Your task to perform on an android device: toggle data saver in the chrome app Image 0: 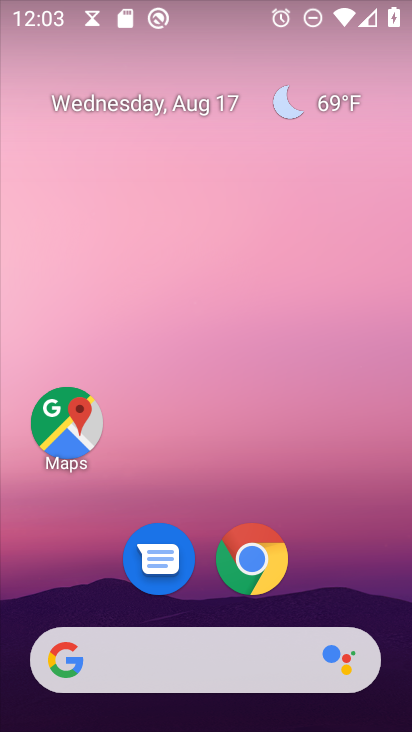
Step 0: click (254, 562)
Your task to perform on an android device: toggle data saver in the chrome app Image 1: 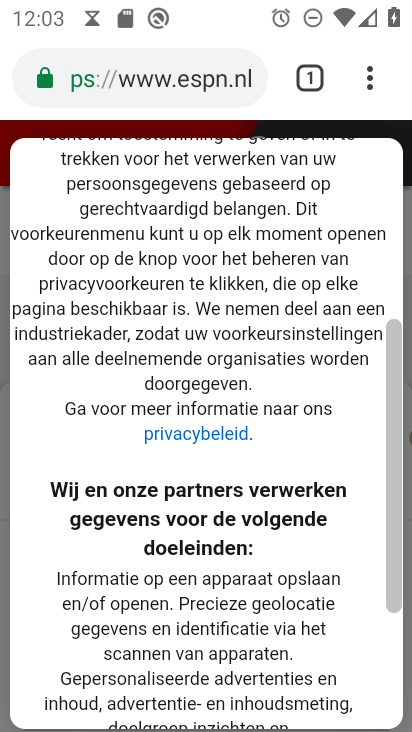
Step 1: click (388, 79)
Your task to perform on an android device: toggle data saver in the chrome app Image 2: 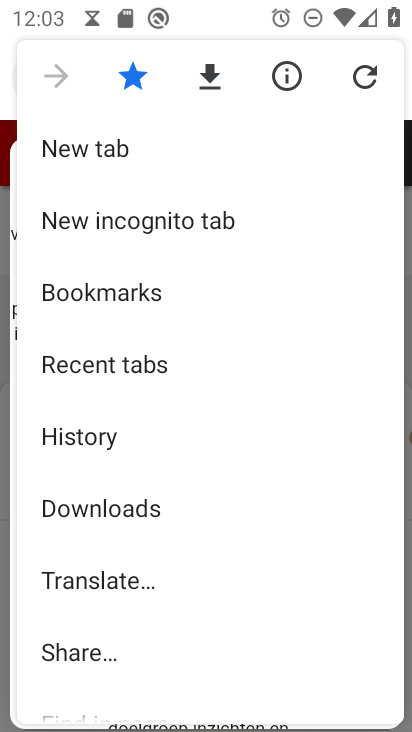
Step 2: drag from (154, 439) to (179, 361)
Your task to perform on an android device: toggle data saver in the chrome app Image 3: 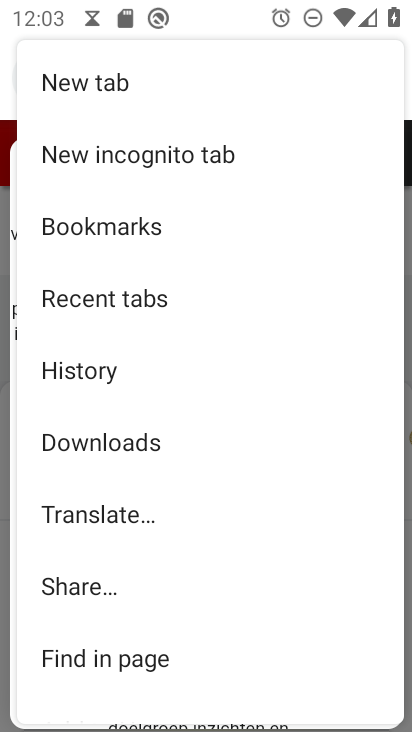
Step 3: drag from (151, 465) to (188, 384)
Your task to perform on an android device: toggle data saver in the chrome app Image 4: 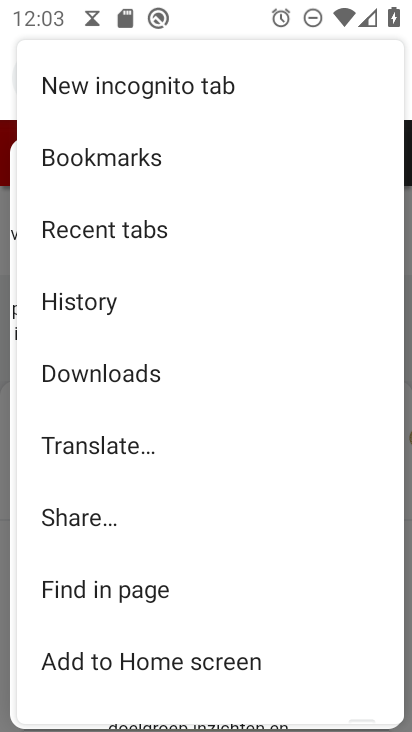
Step 4: drag from (169, 482) to (197, 409)
Your task to perform on an android device: toggle data saver in the chrome app Image 5: 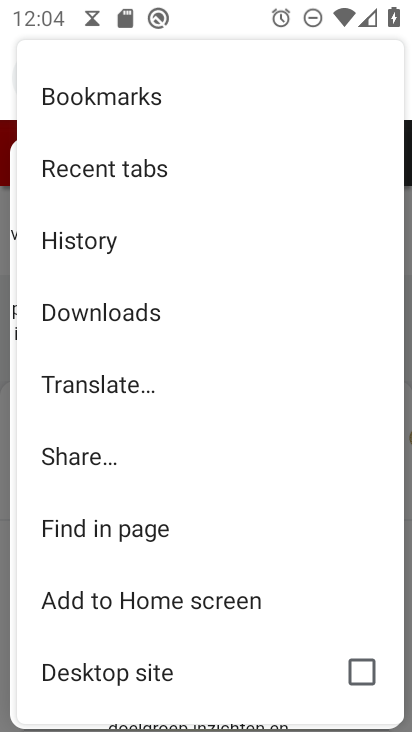
Step 5: drag from (130, 498) to (175, 417)
Your task to perform on an android device: toggle data saver in the chrome app Image 6: 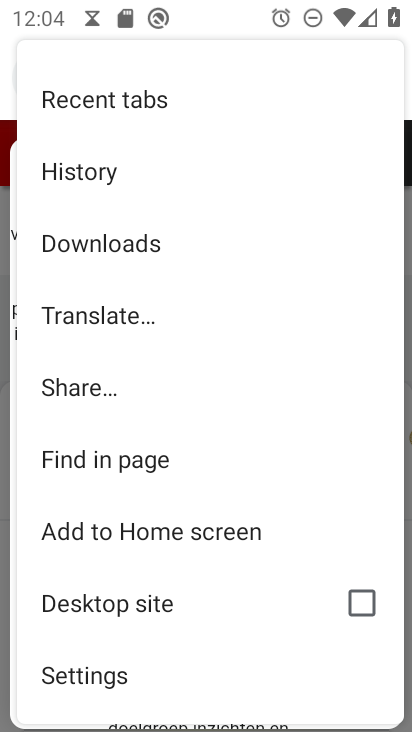
Step 6: drag from (149, 554) to (202, 465)
Your task to perform on an android device: toggle data saver in the chrome app Image 7: 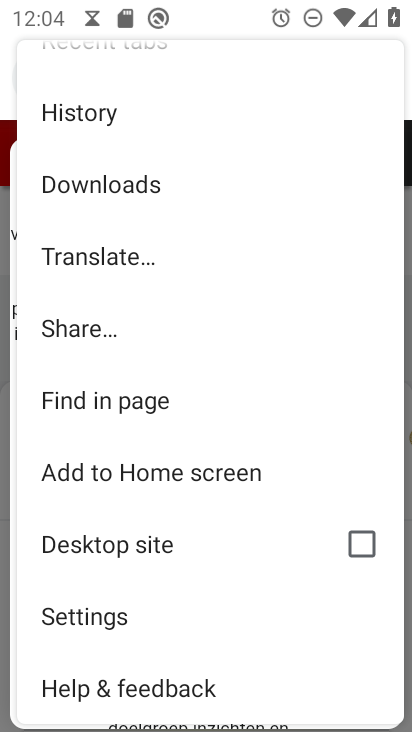
Step 7: click (109, 622)
Your task to perform on an android device: toggle data saver in the chrome app Image 8: 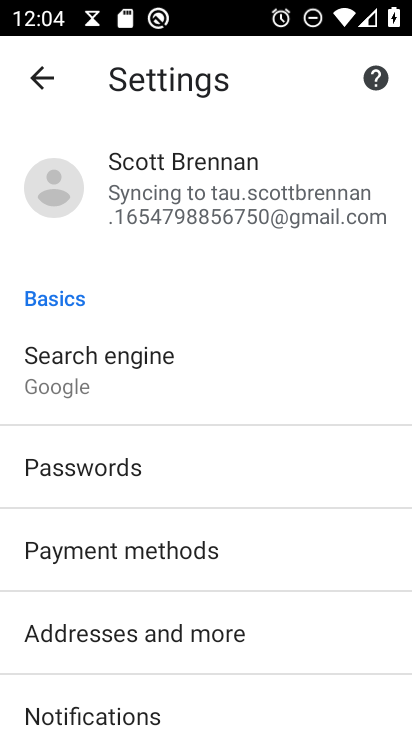
Step 8: drag from (93, 577) to (194, 427)
Your task to perform on an android device: toggle data saver in the chrome app Image 9: 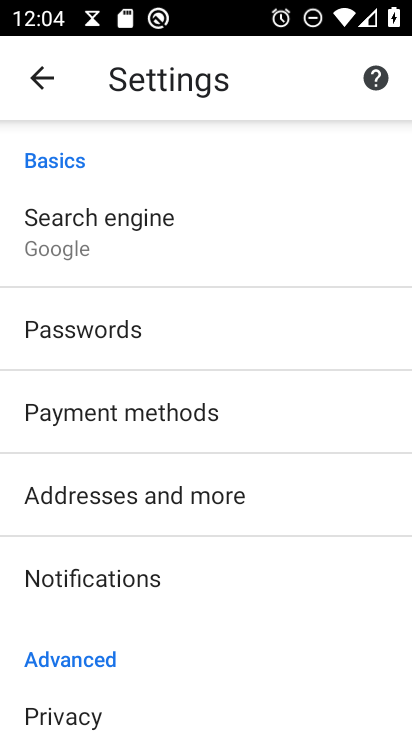
Step 9: drag from (101, 637) to (174, 511)
Your task to perform on an android device: toggle data saver in the chrome app Image 10: 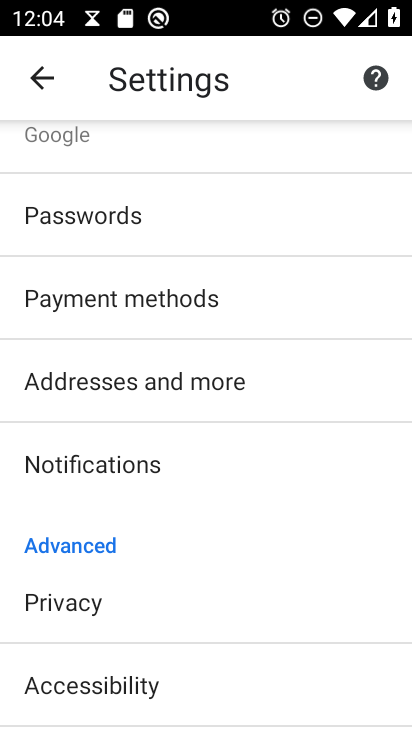
Step 10: drag from (101, 644) to (178, 517)
Your task to perform on an android device: toggle data saver in the chrome app Image 11: 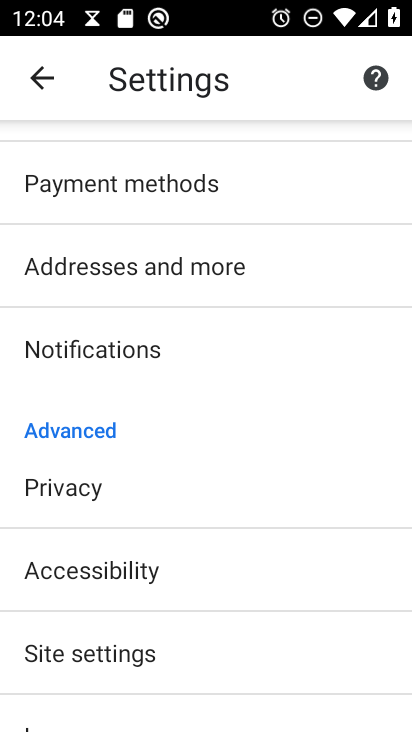
Step 11: drag from (120, 629) to (180, 523)
Your task to perform on an android device: toggle data saver in the chrome app Image 12: 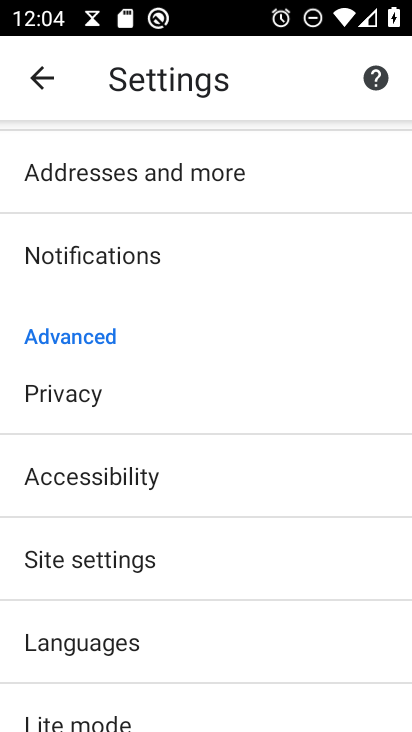
Step 12: drag from (118, 633) to (166, 534)
Your task to perform on an android device: toggle data saver in the chrome app Image 13: 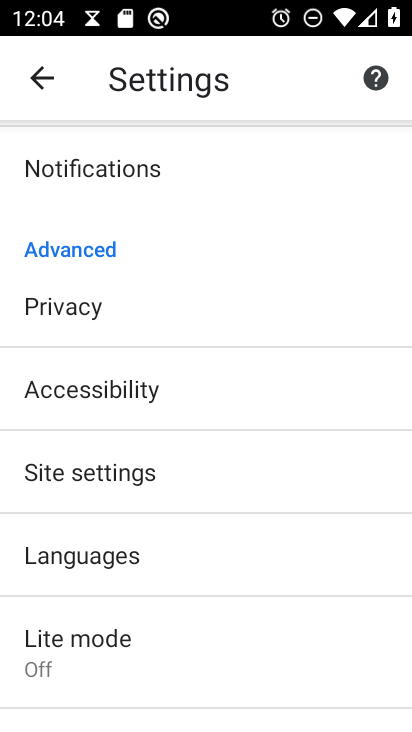
Step 13: click (98, 638)
Your task to perform on an android device: toggle data saver in the chrome app Image 14: 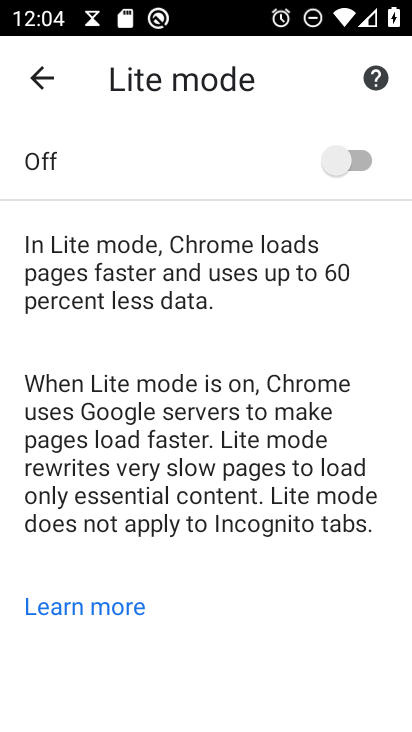
Step 14: click (349, 169)
Your task to perform on an android device: toggle data saver in the chrome app Image 15: 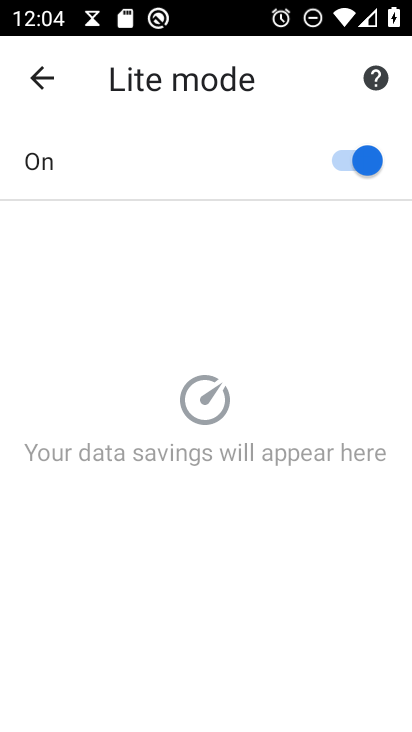
Step 15: task complete